Your task to perform on an android device: turn off smart reply in the gmail app Image 0: 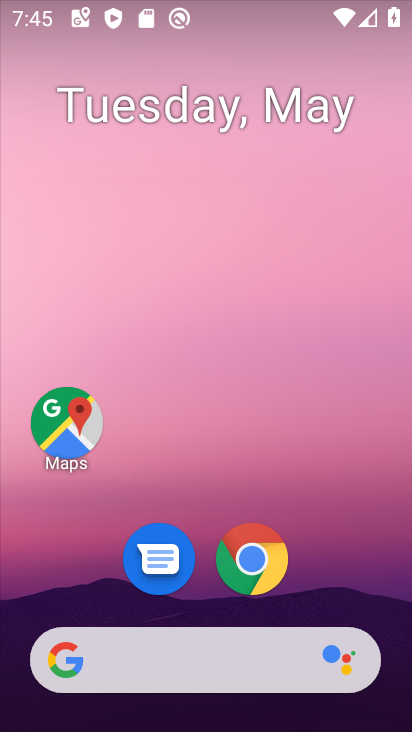
Step 0: drag from (350, 501) to (340, 4)
Your task to perform on an android device: turn off smart reply in the gmail app Image 1: 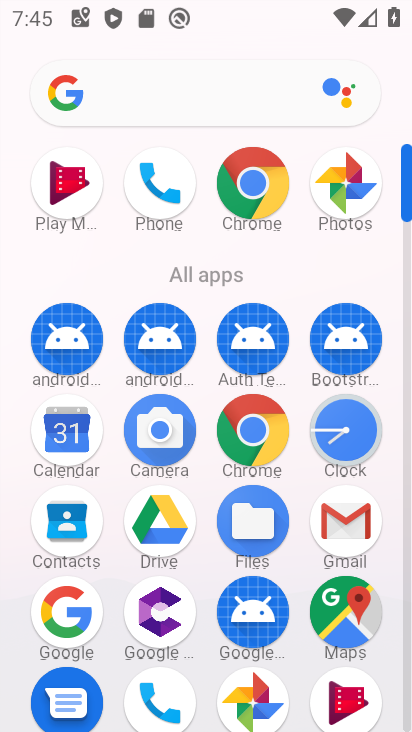
Step 1: click (360, 525)
Your task to perform on an android device: turn off smart reply in the gmail app Image 2: 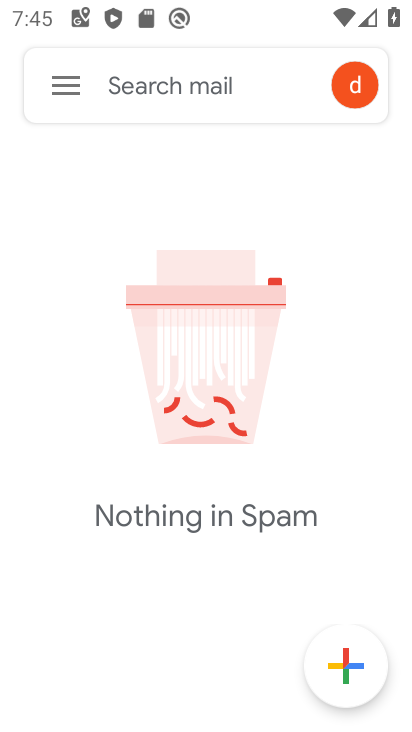
Step 2: click (65, 86)
Your task to perform on an android device: turn off smart reply in the gmail app Image 3: 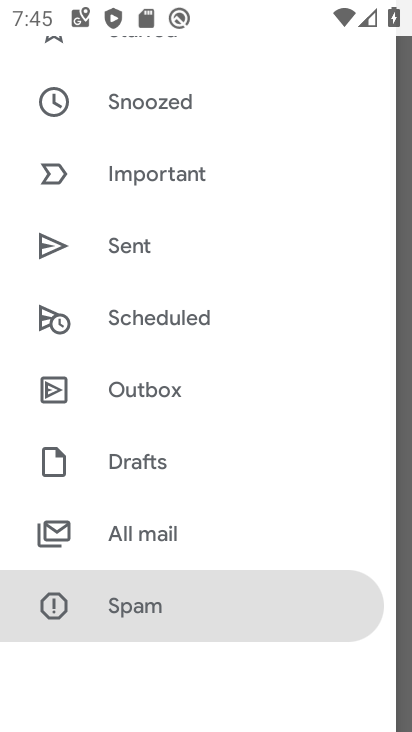
Step 3: drag from (220, 562) to (207, 126)
Your task to perform on an android device: turn off smart reply in the gmail app Image 4: 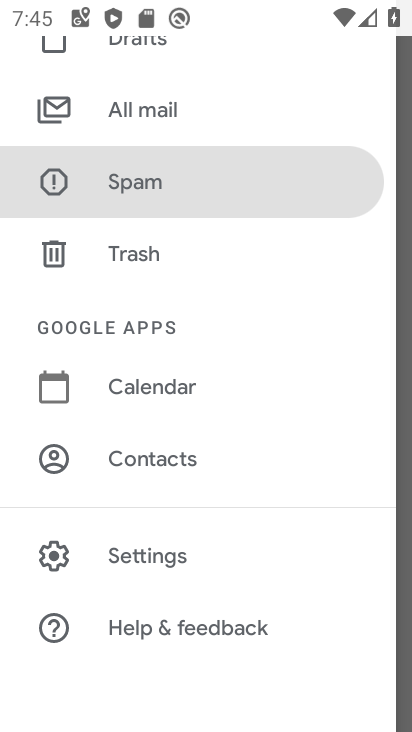
Step 4: click (150, 548)
Your task to perform on an android device: turn off smart reply in the gmail app Image 5: 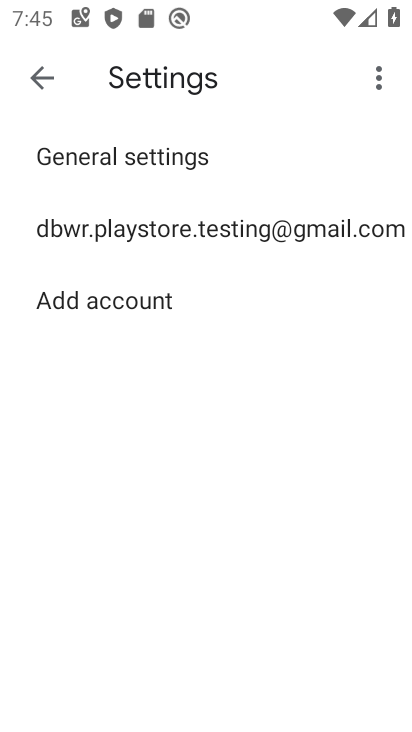
Step 5: click (139, 228)
Your task to perform on an android device: turn off smart reply in the gmail app Image 6: 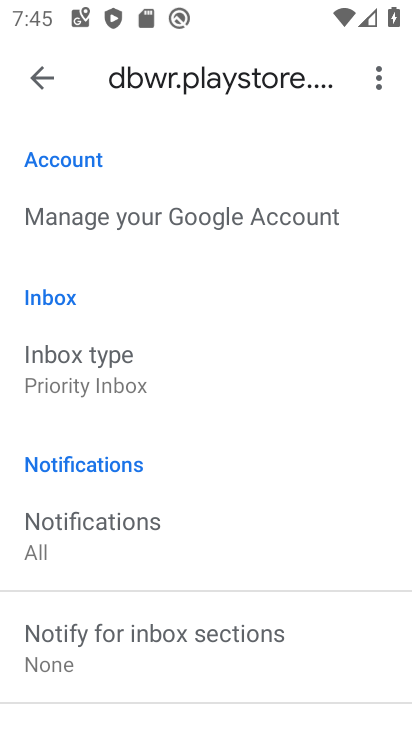
Step 6: drag from (191, 623) to (221, 247)
Your task to perform on an android device: turn off smart reply in the gmail app Image 7: 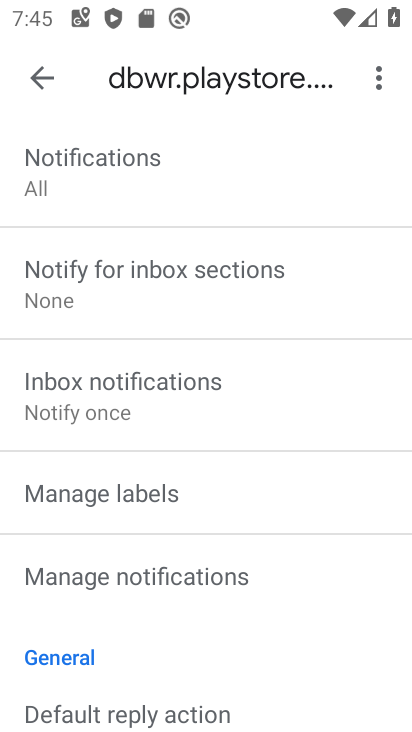
Step 7: drag from (214, 295) to (222, 634)
Your task to perform on an android device: turn off smart reply in the gmail app Image 8: 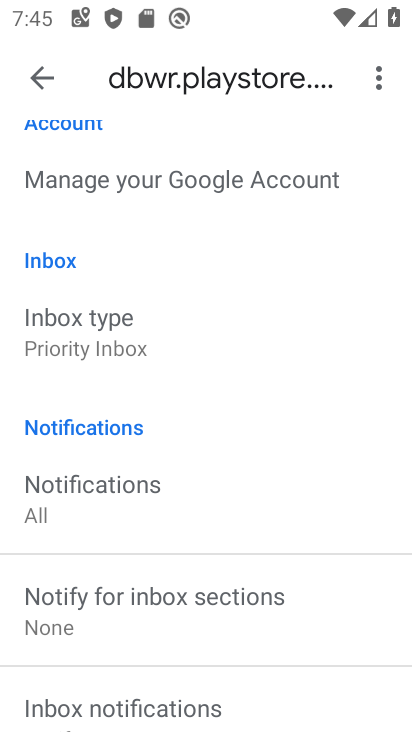
Step 8: drag from (180, 607) to (220, 330)
Your task to perform on an android device: turn off smart reply in the gmail app Image 9: 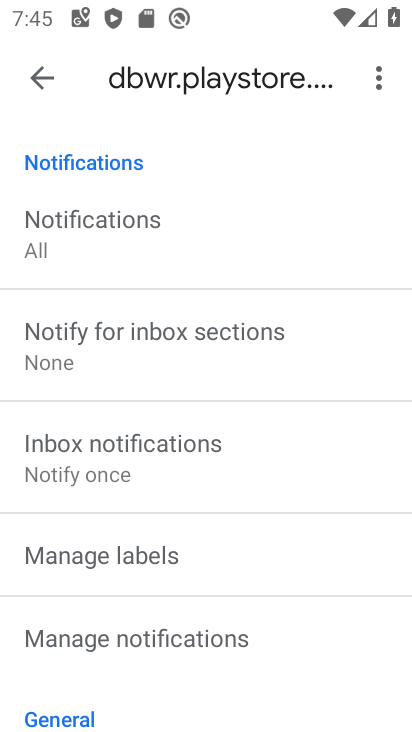
Step 9: drag from (264, 637) to (338, 191)
Your task to perform on an android device: turn off smart reply in the gmail app Image 10: 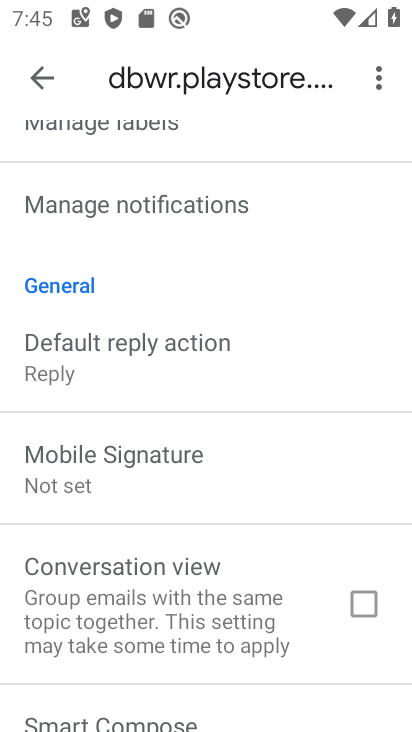
Step 10: drag from (301, 545) to (324, 176)
Your task to perform on an android device: turn off smart reply in the gmail app Image 11: 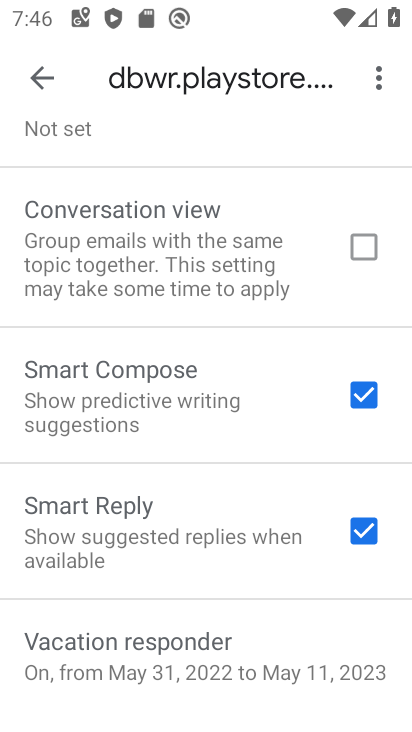
Step 11: drag from (275, 469) to (335, 161)
Your task to perform on an android device: turn off smart reply in the gmail app Image 12: 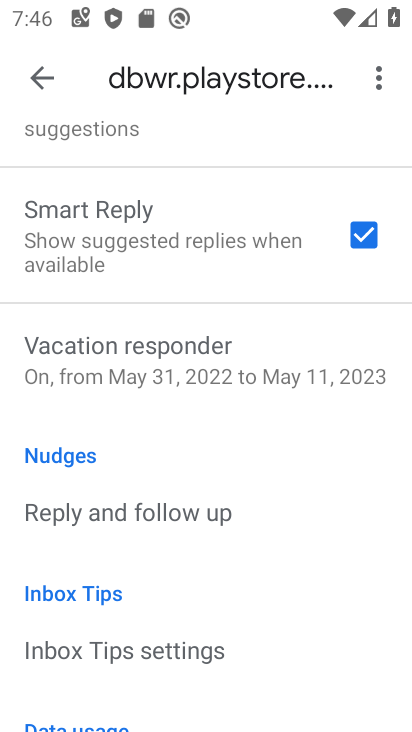
Step 12: click (369, 228)
Your task to perform on an android device: turn off smart reply in the gmail app Image 13: 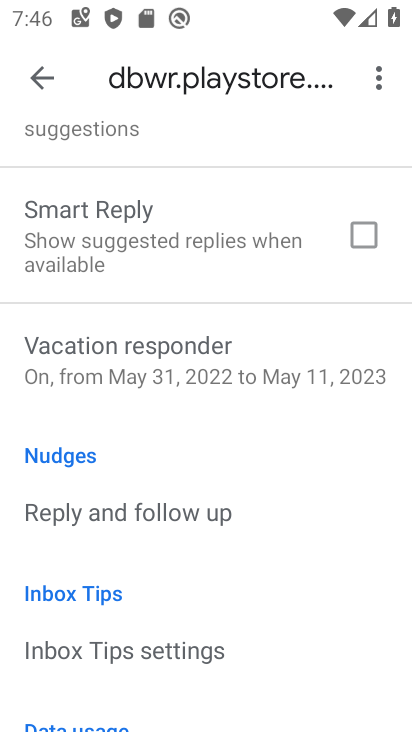
Step 13: task complete